Your task to perform on an android device: turn on the 12-hour format for clock Image 0: 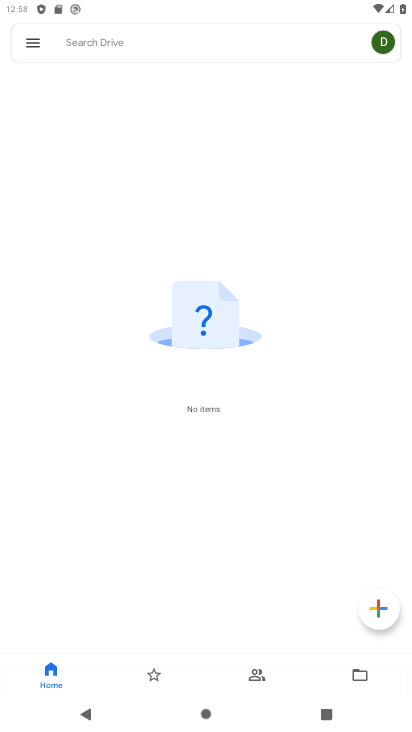
Step 0: press home button
Your task to perform on an android device: turn on the 12-hour format for clock Image 1: 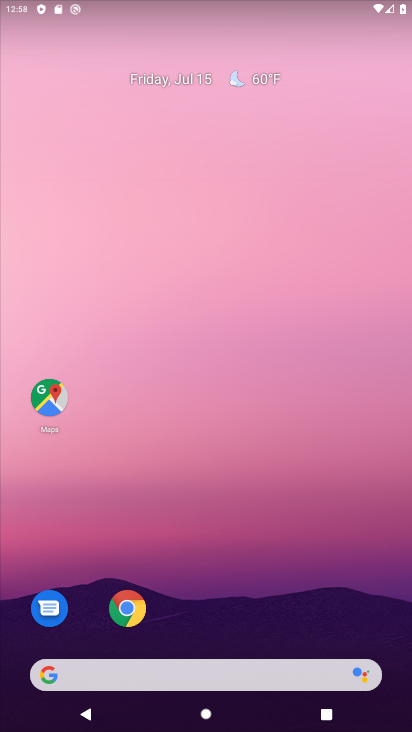
Step 1: drag from (292, 623) to (304, 99)
Your task to perform on an android device: turn on the 12-hour format for clock Image 2: 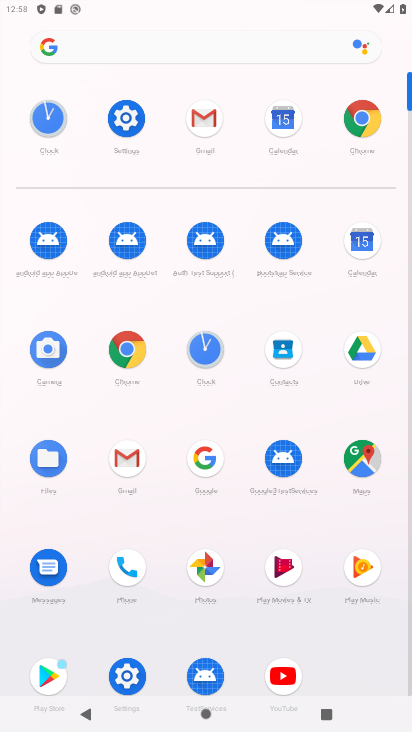
Step 2: click (133, 661)
Your task to perform on an android device: turn on the 12-hour format for clock Image 3: 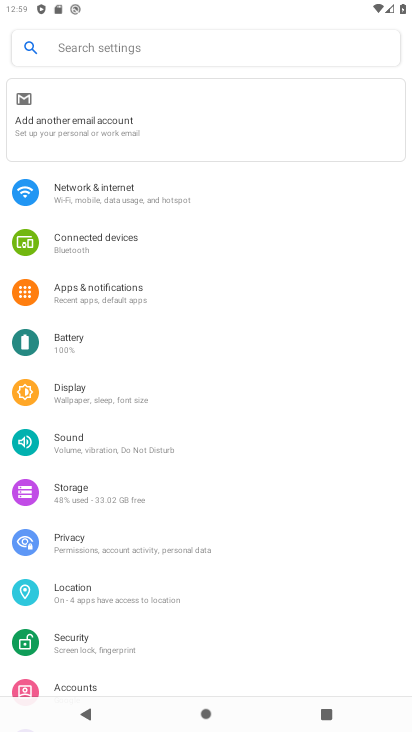
Step 3: press home button
Your task to perform on an android device: turn on the 12-hour format for clock Image 4: 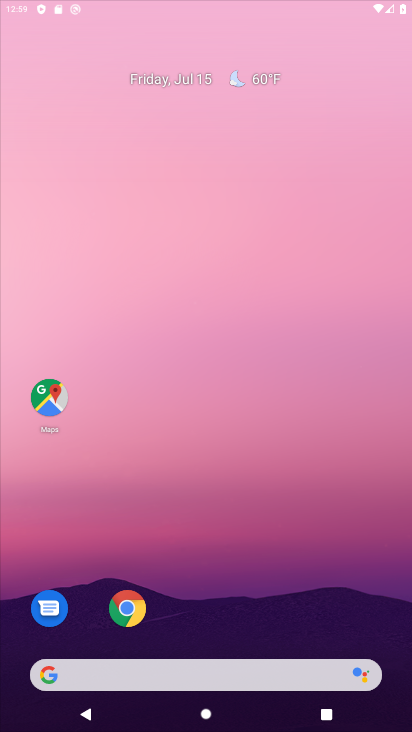
Step 4: drag from (266, 591) to (289, 294)
Your task to perform on an android device: turn on the 12-hour format for clock Image 5: 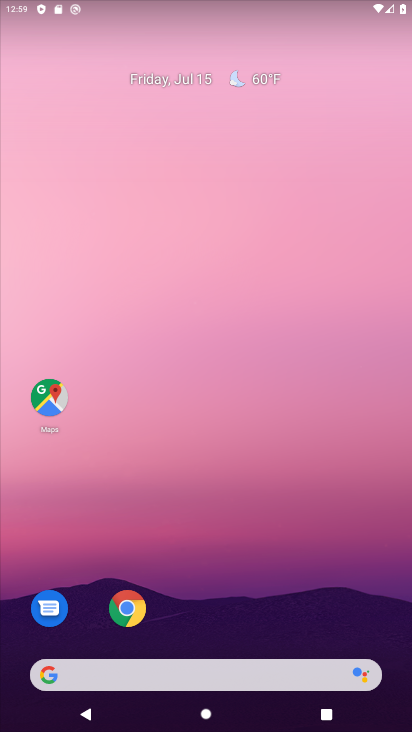
Step 5: drag from (289, 526) to (294, 52)
Your task to perform on an android device: turn on the 12-hour format for clock Image 6: 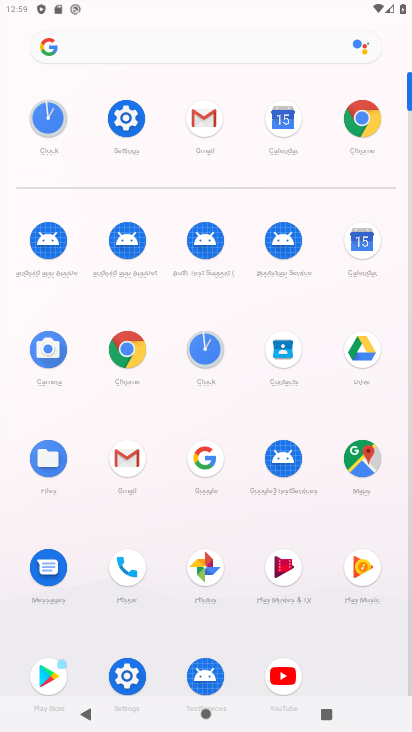
Step 6: click (208, 354)
Your task to perform on an android device: turn on the 12-hour format for clock Image 7: 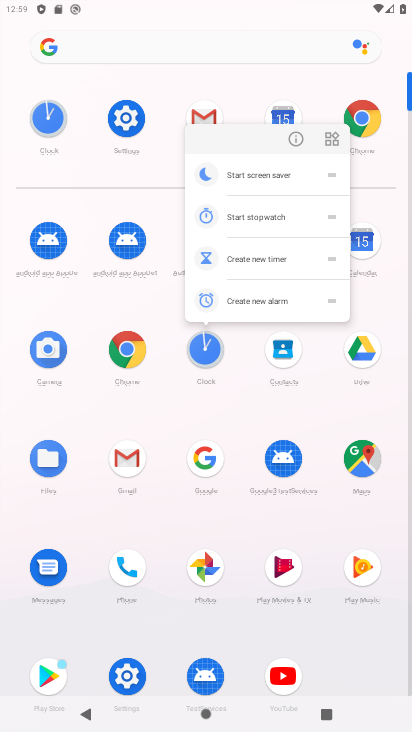
Step 7: click (208, 354)
Your task to perform on an android device: turn on the 12-hour format for clock Image 8: 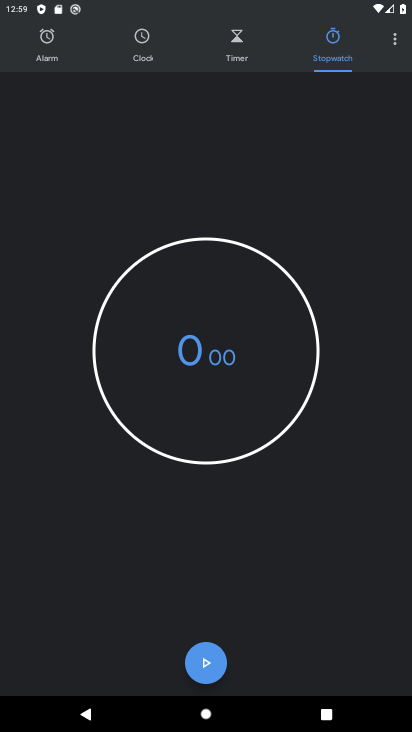
Step 8: click (399, 46)
Your task to perform on an android device: turn on the 12-hour format for clock Image 9: 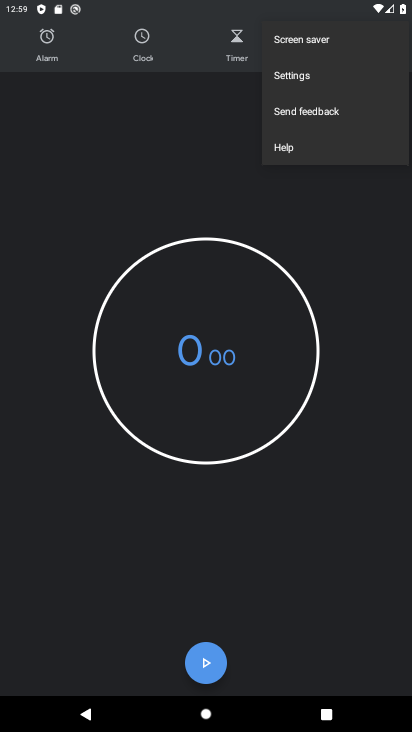
Step 9: click (290, 79)
Your task to perform on an android device: turn on the 12-hour format for clock Image 10: 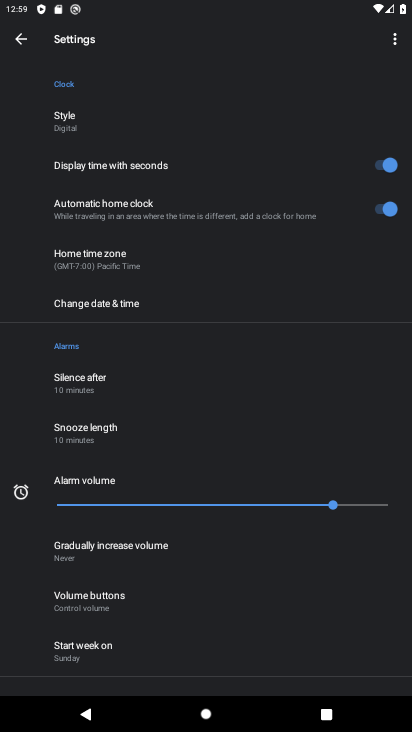
Step 10: click (120, 311)
Your task to perform on an android device: turn on the 12-hour format for clock Image 11: 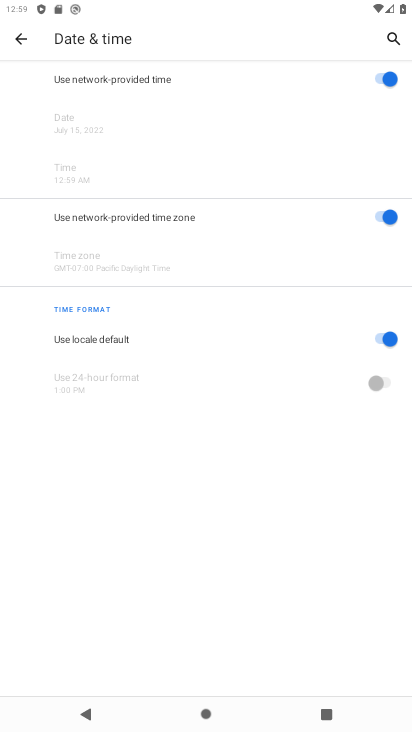
Step 11: click (123, 332)
Your task to perform on an android device: turn on the 12-hour format for clock Image 12: 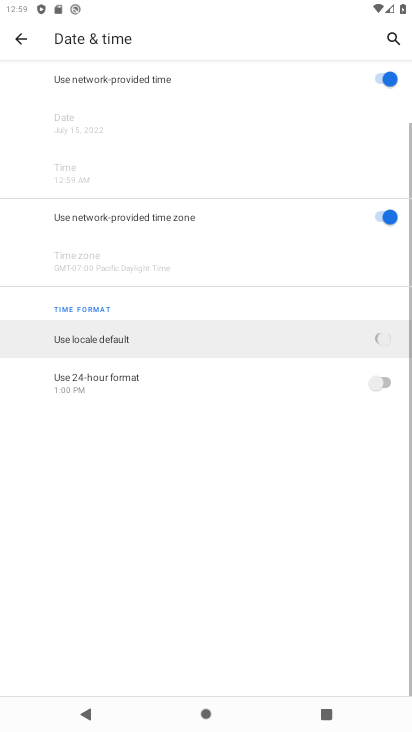
Step 12: click (154, 380)
Your task to perform on an android device: turn on the 12-hour format for clock Image 13: 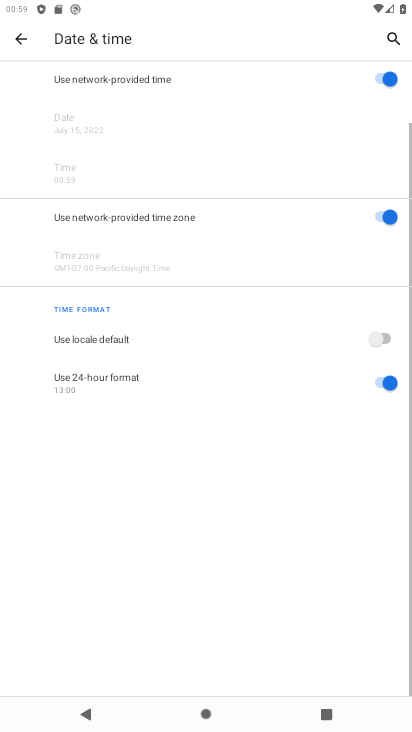
Step 13: task complete